Your task to perform on an android device: Go to CNN.com Image 0: 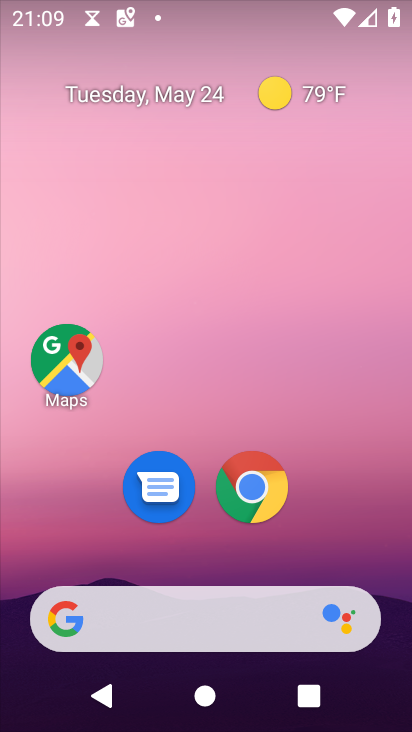
Step 0: press home button
Your task to perform on an android device: Go to CNN.com Image 1: 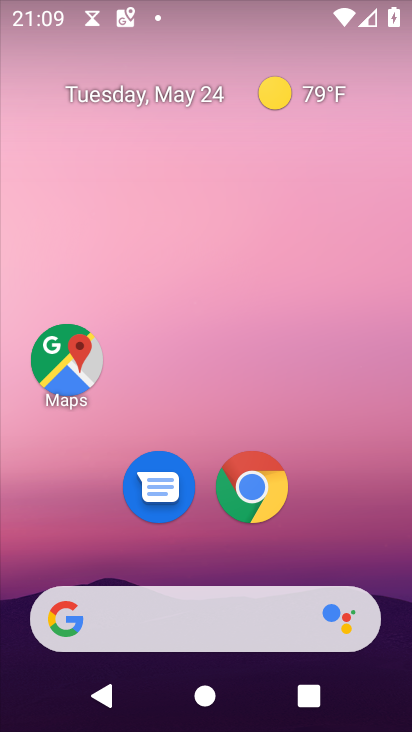
Step 1: click (250, 484)
Your task to perform on an android device: Go to CNN.com Image 2: 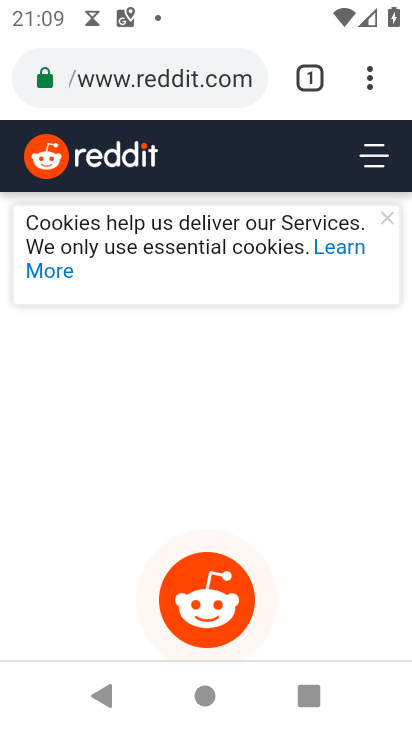
Step 2: click (369, 86)
Your task to perform on an android device: Go to CNN.com Image 3: 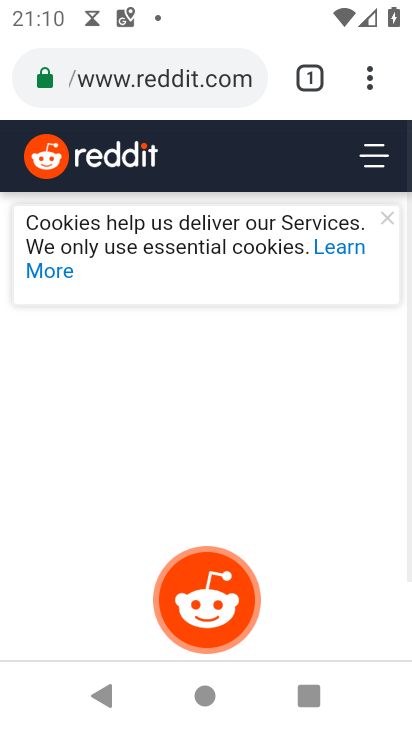
Step 3: drag from (369, 86) to (400, 4)
Your task to perform on an android device: Go to CNN.com Image 4: 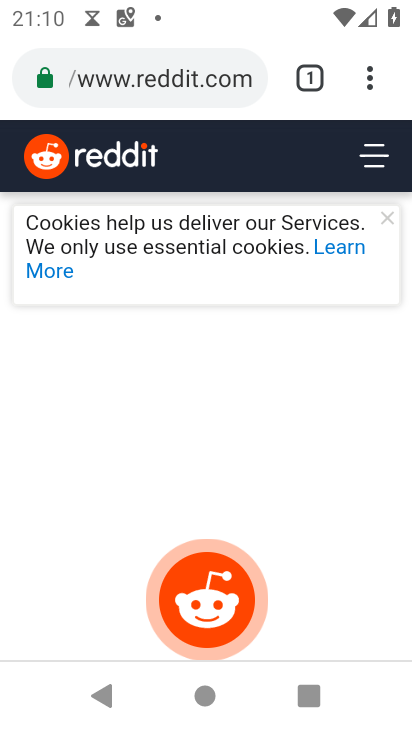
Step 4: click (165, 84)
Your task to perform on an android device: Go to CNN.com Image 5: 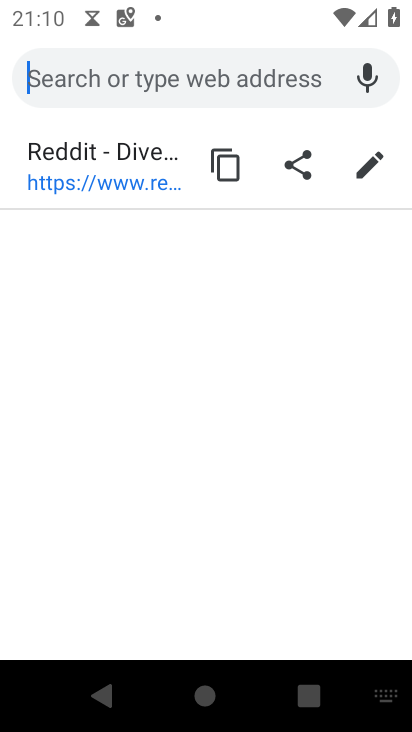
Step 5: type " CNN.com"
Your task to perform on an android device: Go to CNN.com Image 6: 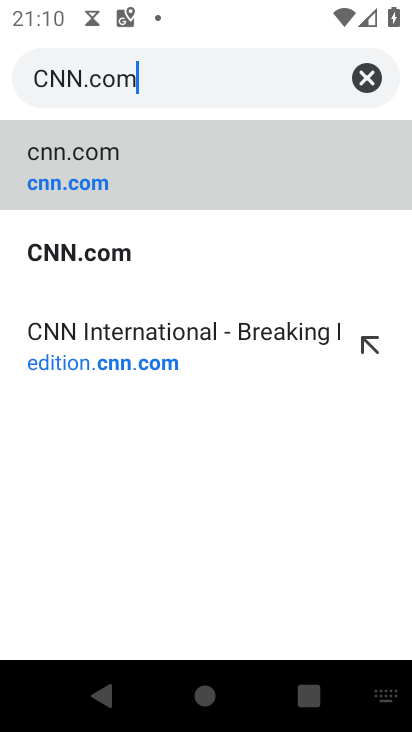
Step 6: type ""
Your task to perform on an android device: Go to CNN.com Image 7: 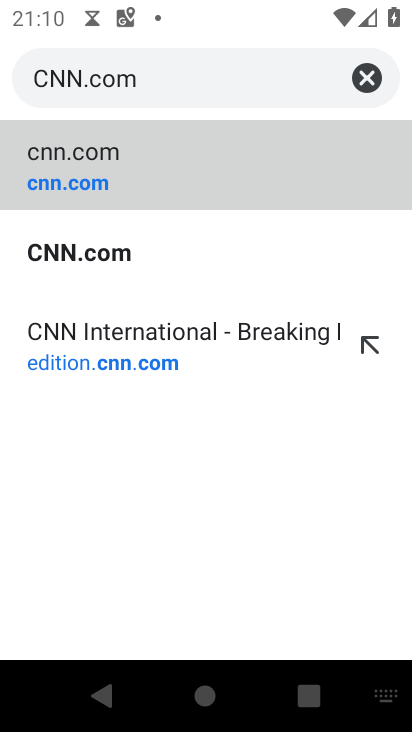
Step 7: click (164, 156)
Your task to perform on an android device: Go to CNN.com Image 8: 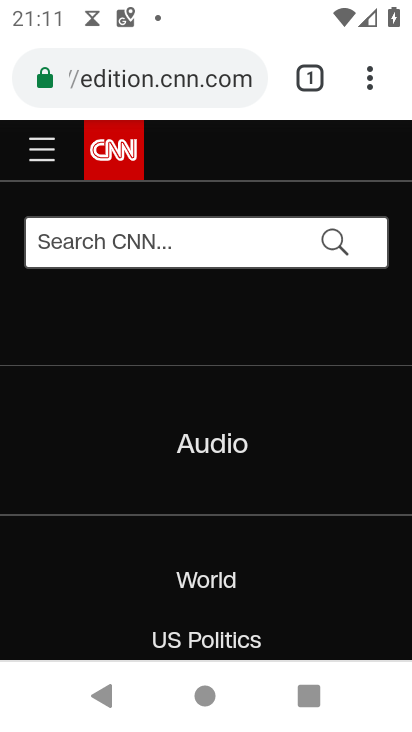
Step 8: task complete